Your task to perform on an android device: Go to battery settings Image 0: 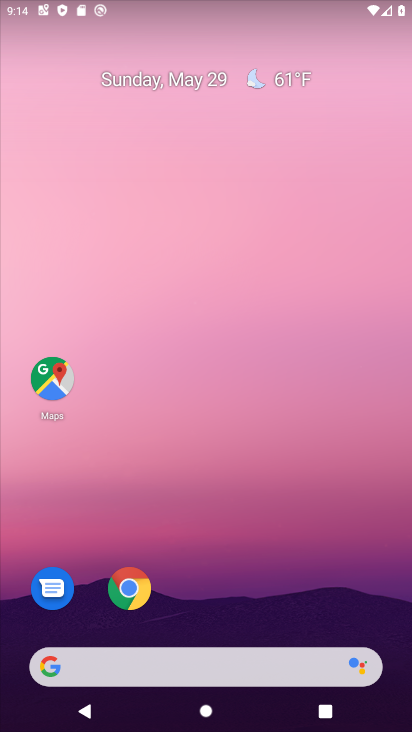
Step 0: drag from (268, 549) to (205, 205)
Your task to perform on an android device: Go to battery settings Image 1: 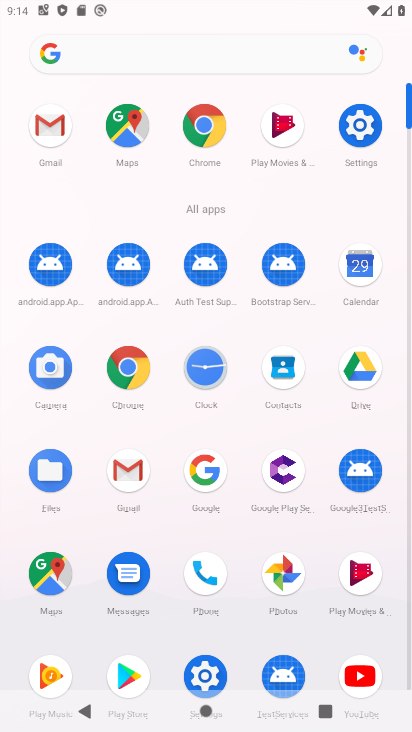
Step 1: click (360, 121)
Your task to perform on an android device: Go to battery settings Image 2: 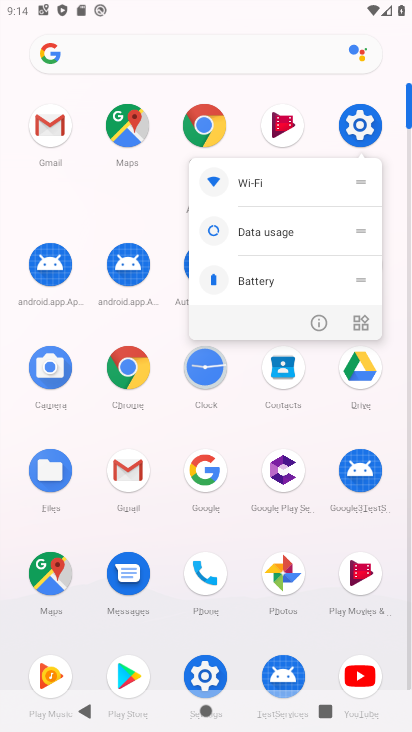
Step 2: click (364, 111)
Your task to perform on an android device: Go to battery settings Image 3: 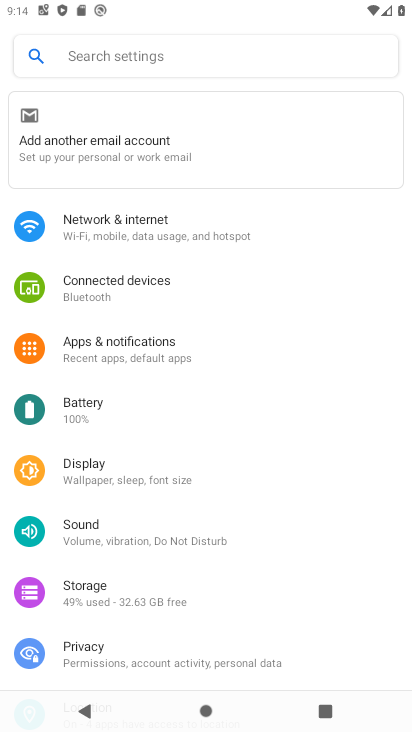
Step 3: drag from (225, 562) to (323, 145)
Your task to perform on an android device: Go to battery settings Image 4: 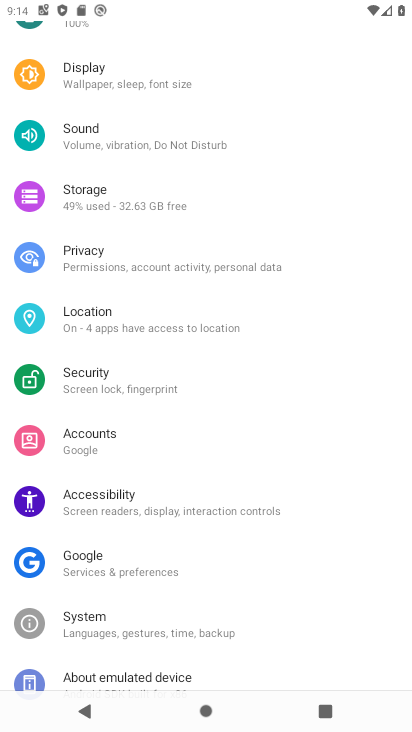
Step 4: drag from (109, 479) to (188, 576)
Your task to perform on an android device: Go to battery settings Image 5: 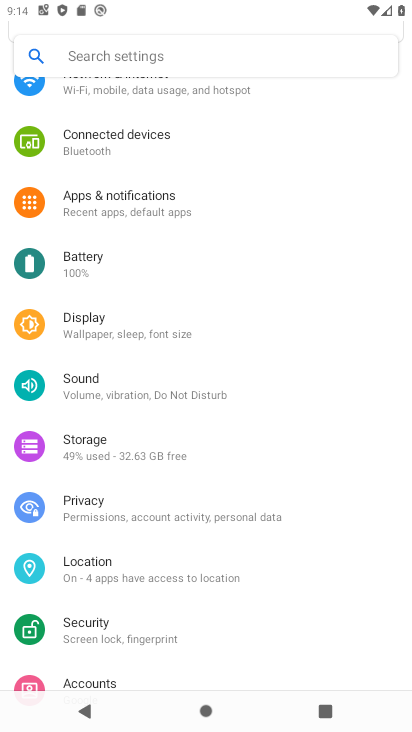
Step 5: click (91, 256)
Your task to perform on an android device: Go to battery settings Image 6: 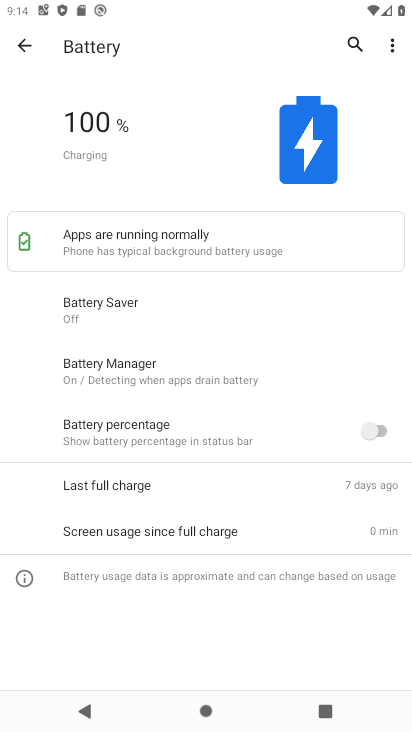
Step 6: task complete